Your task to perform on an android device: clear history in the chrome app Image 0: 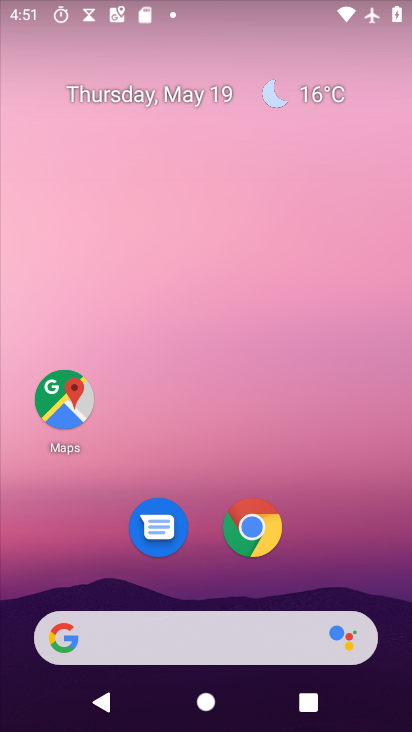
Step 0: click (262, 527)
Your task to perform on an android device: clear history in the chrome app Image 1: 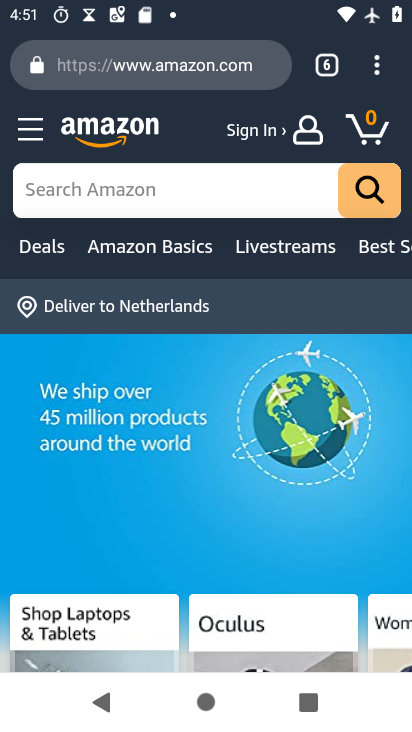
Step 1: click (382, 56)
Your task to perform on an android device: clear history in the chrome app Image 2: 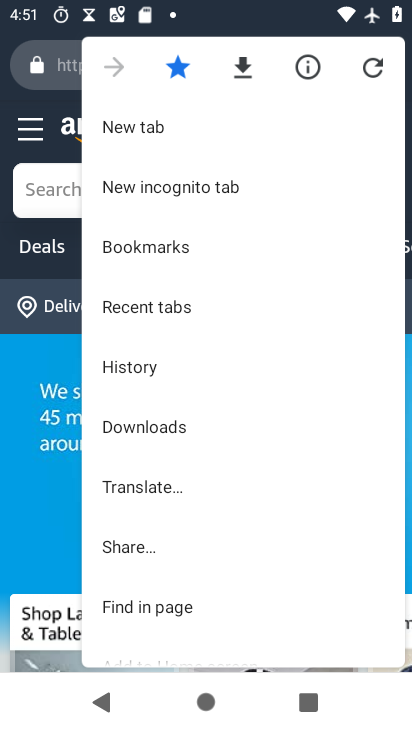
Step 2: click (134, 374)
Your task to perform on an android device: clear history in the chrome app Image 3: 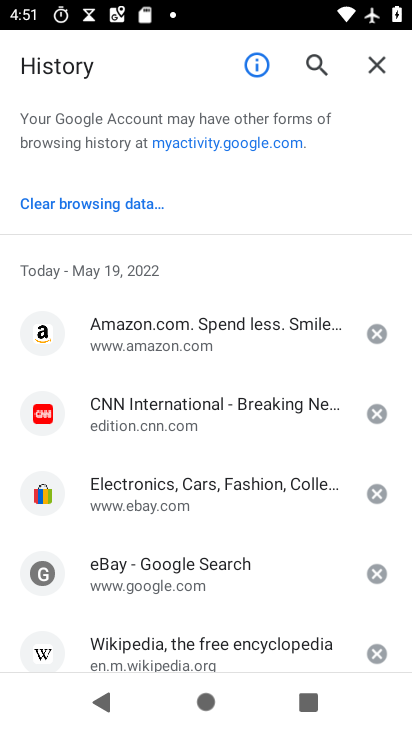
Step 3: click (114, 201)
Your task to perform on an android device: clear history in the chrome app Image 4: 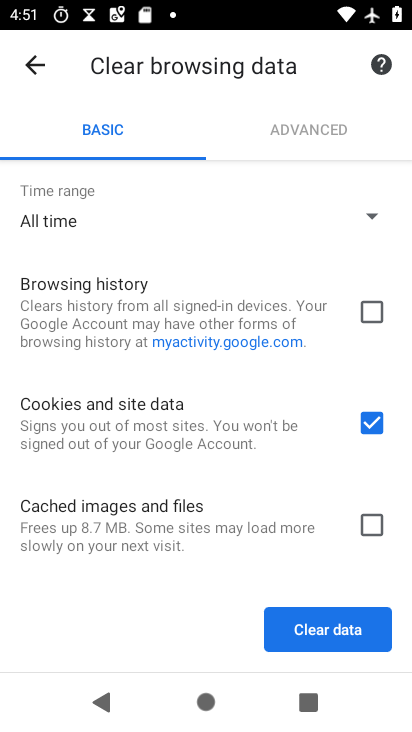
Step 4: click (323, 620)
Your task to perform on an android device: clear history in the chrome app Image 5: 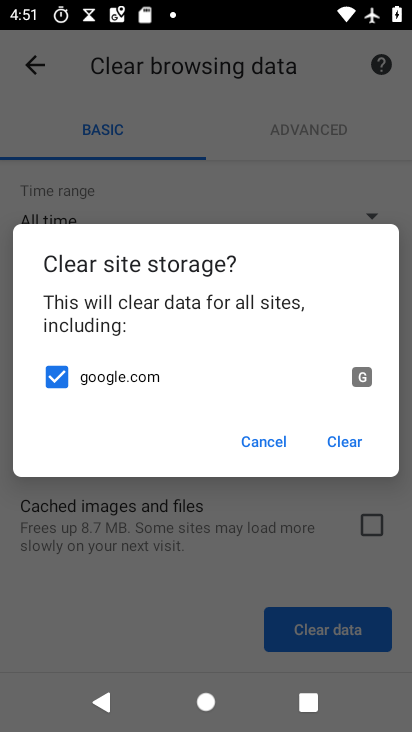
Step 5: click (335, 440)
Your task to perform on an android device: clear history in the chrome app Image 6: 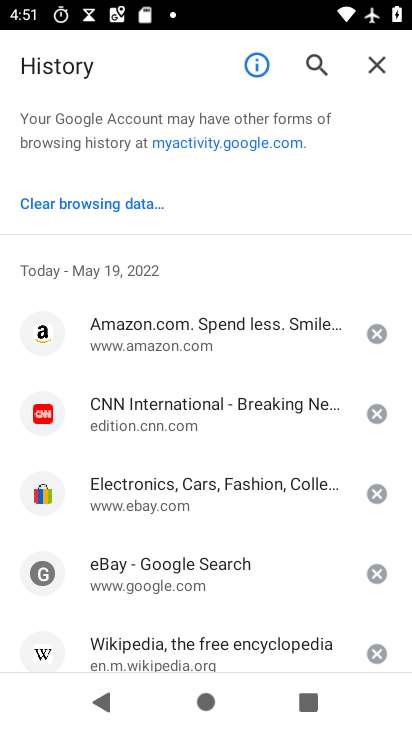
Step 6: click (100, 211)
Your task to perform on an android device: clear history in the chrome app Image 7: 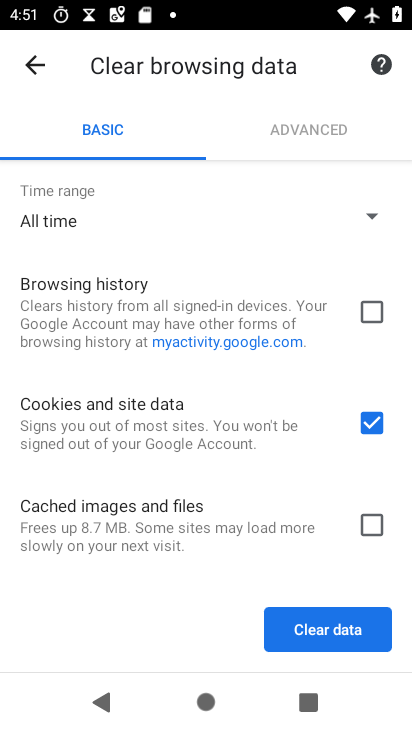
Step 7: click (337, 627)
Your task to perform on an android device: clear history in the chrome app Image 8: 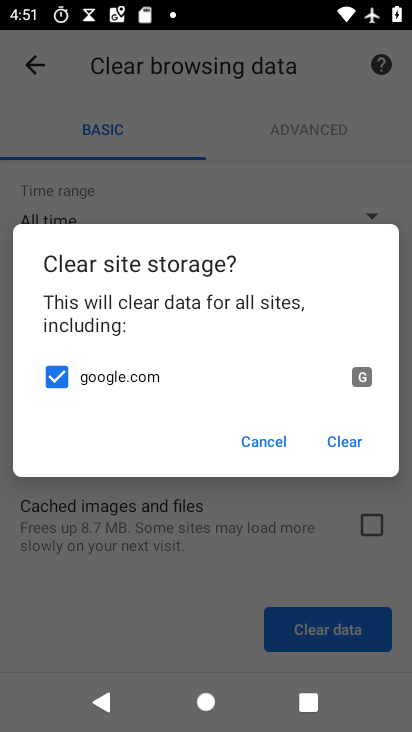
Step 8: click (343, 438)
Your task to perform on an android device: clear history in the chrome app Image 9: 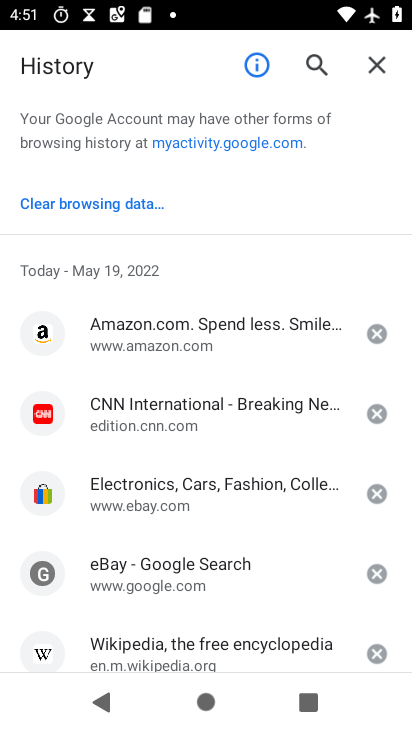
Step 9: task complete